Your task to perform on an android device: open app "PlayWell" (install if not already installed), go to login, and select forgot password Image 0: 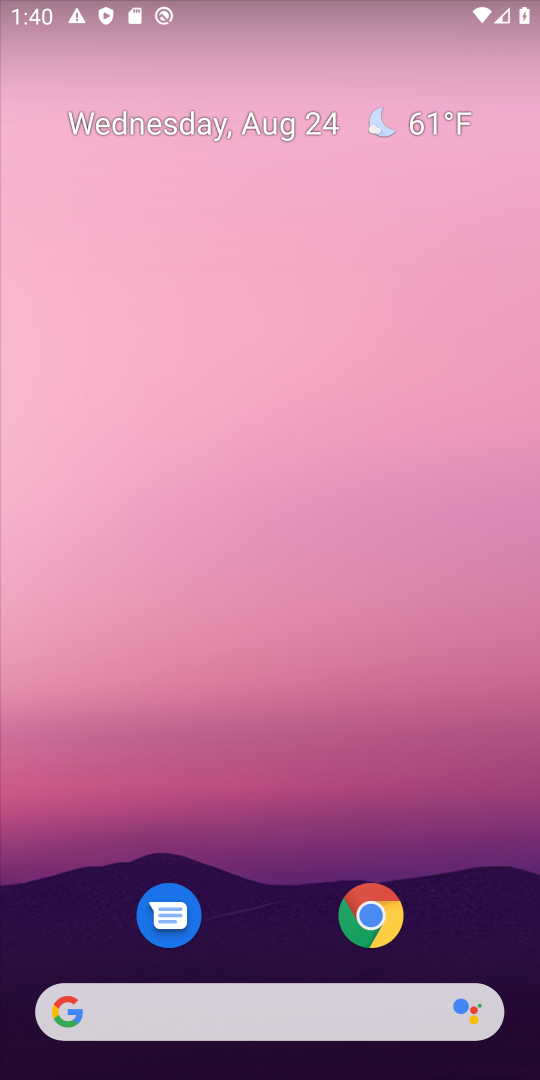
Step 0: drag from (265, 805) to (383, 240)
Your task to perform on an android device: open app "PlayWell" (install if not already installed), go to login, and select forgot password Image 1: 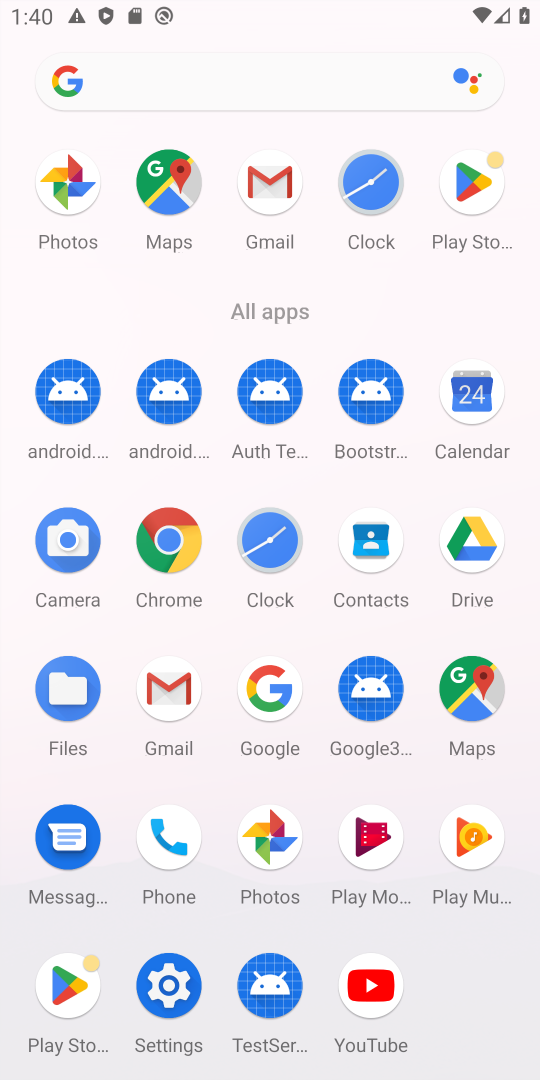
Step 1: click (472, 180)
Your task to perform on an android device: open app "PlayWell" (install if not already installed), go to login, and select forgot password Image 2: 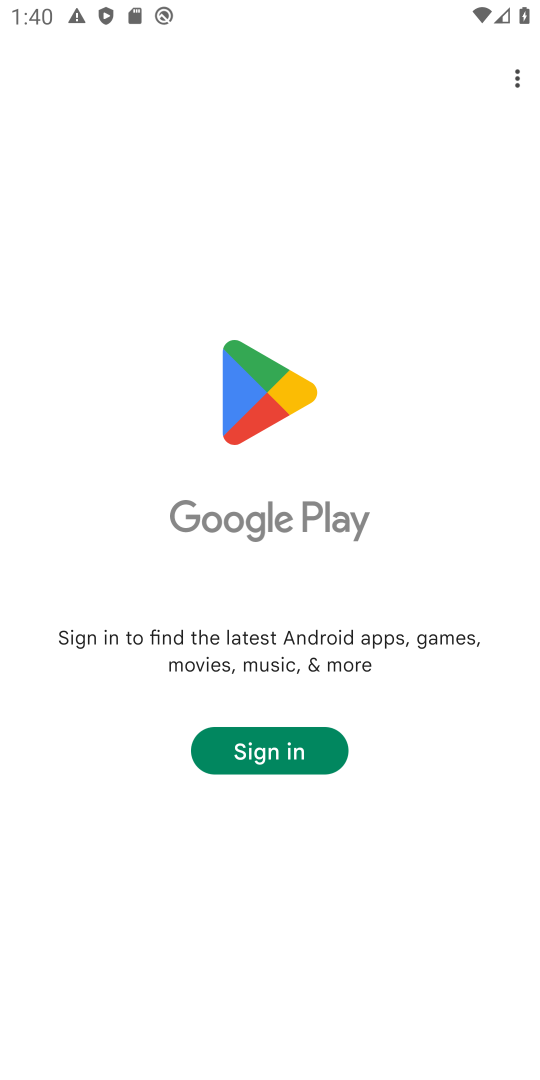
Step 2: task complete